Your task to perform on an android device: Do I have any events this weekend? Image 0: 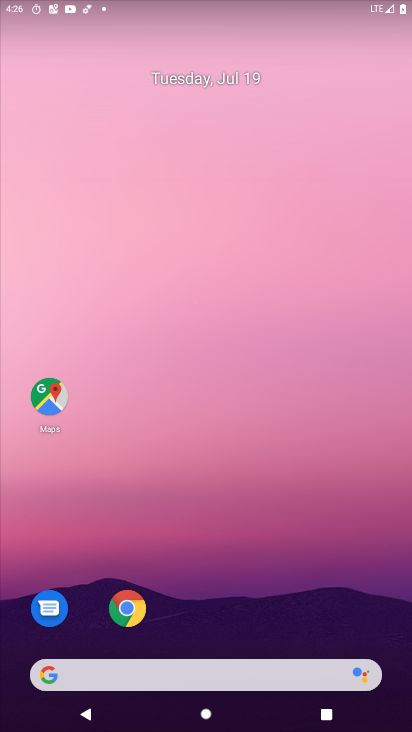
Step 0: drag from (209, 680) to (246, 216)
Your task to perform on an android device: Do I have any events this weekend? Image 1: 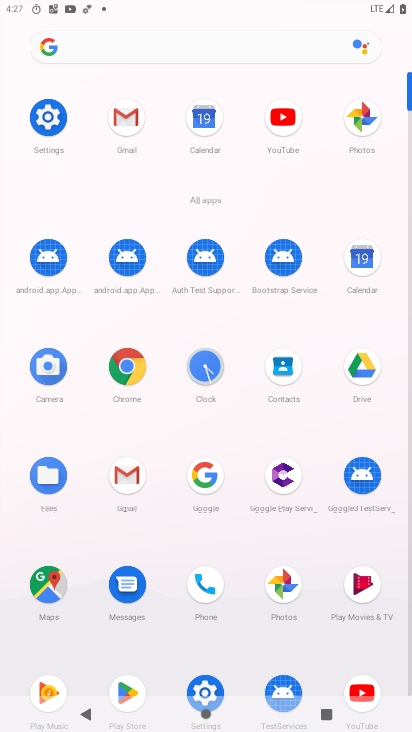
Step 1: click (360, 263)
Your task to perform on an android device: Do I have any events this weekend? Image 2: 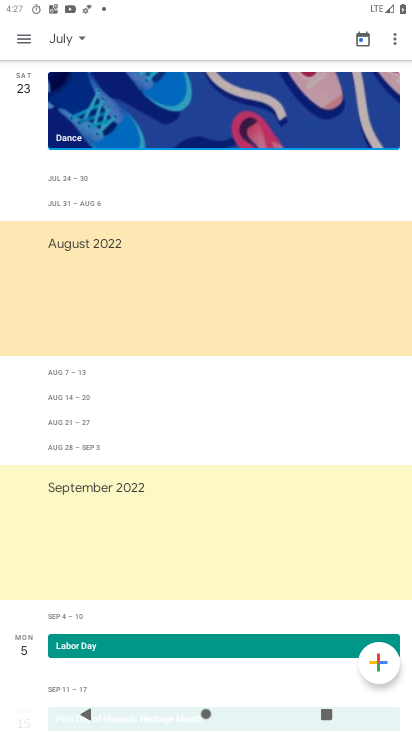
Step 2: click (363, 42)
Your task to perform on an android device: Do I have any events this weekend? Image 3: 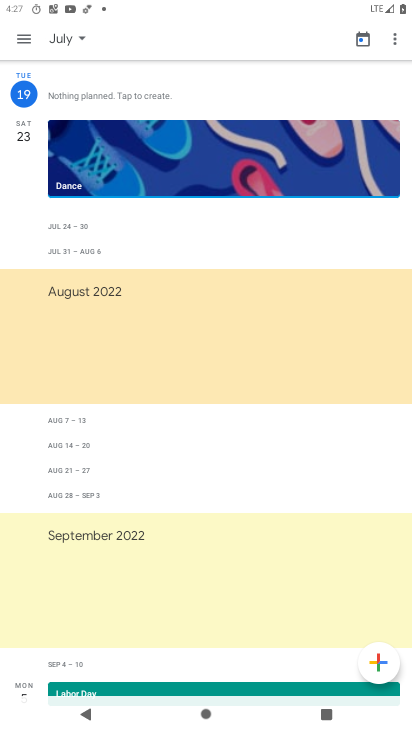
Step 3: click (76, 34)
Your task to perform on an android device: Do I have any events this weekend? Image 4: 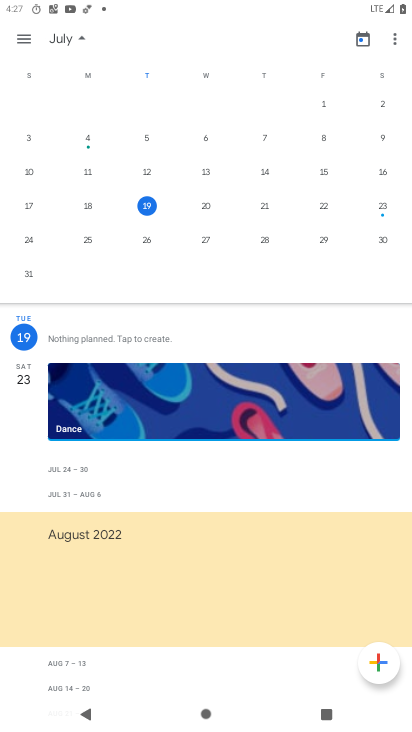
Step 4: click (387, 206)
Your task to perform on an android device: Do I have any events this weekend? Image 5: 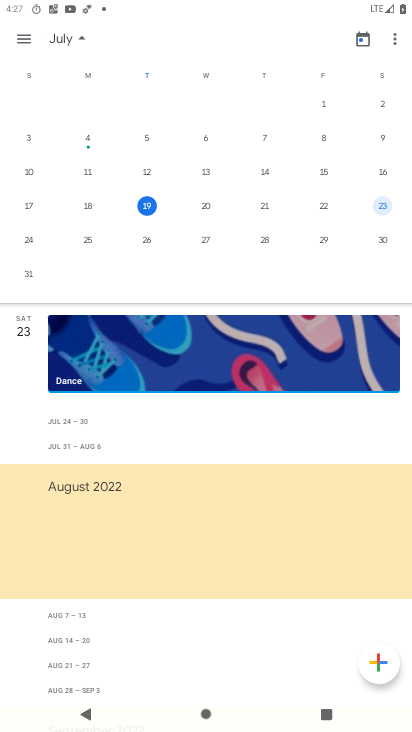
Step 5: click (26, 38)
Your task to perform on an android device: Do I have any events this weekend? Image 6: 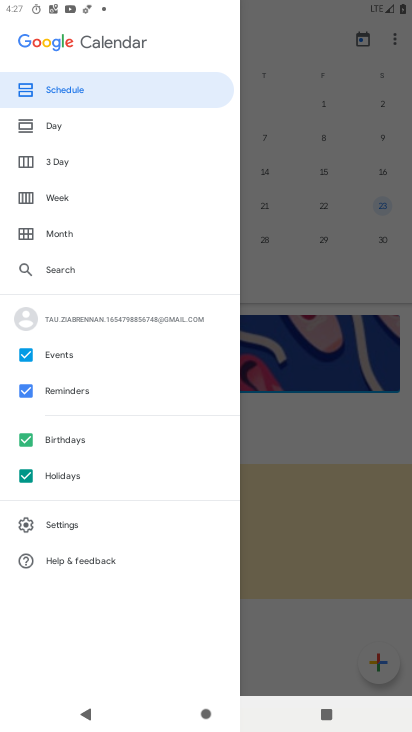
Step 6: click (51, 88)
Your task to perform on an android device: Do I have any events this weekend? Image 7: 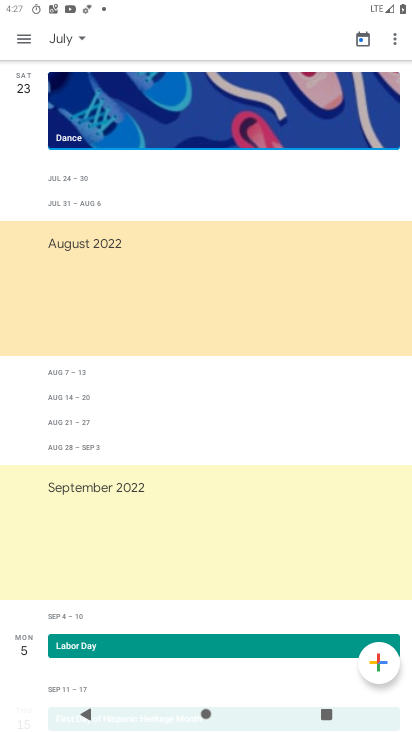
Step 7: task complete